Your task to perform on an android device: What's the weather going to be tomorrow? Image 0: 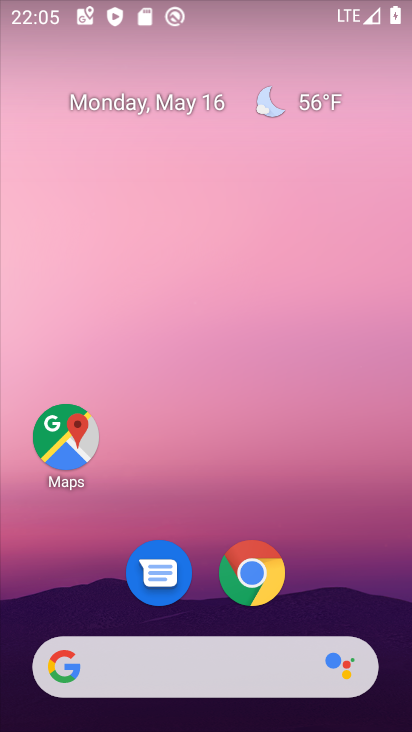
Step 0: click (264, 101)
Your task to perform on an android device: What's the weather going to be tomorrow? Image 1: 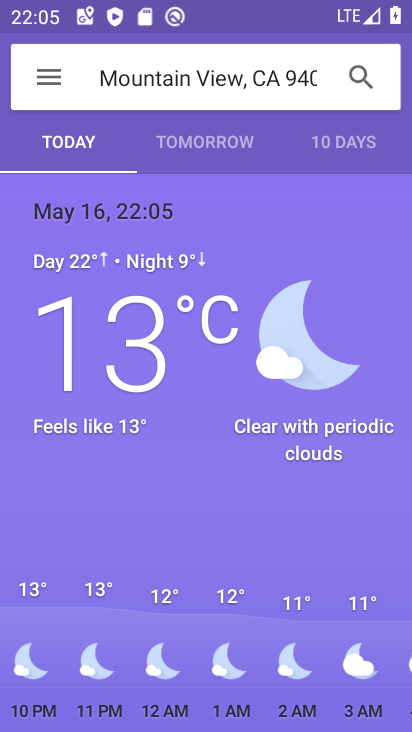
Step 1: click (192, 132)
Your task to perform on an android device: What's the weather going to be tomorrow? Image 2: 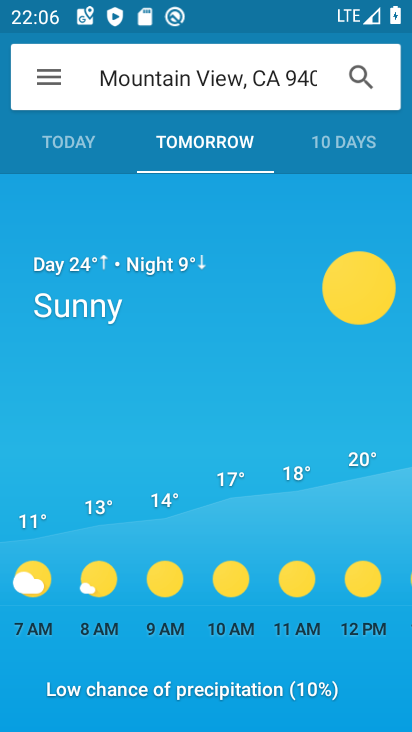
Step 2: task complete